Your task to perform on an android device: Open Maps and search for coffee Image 0: 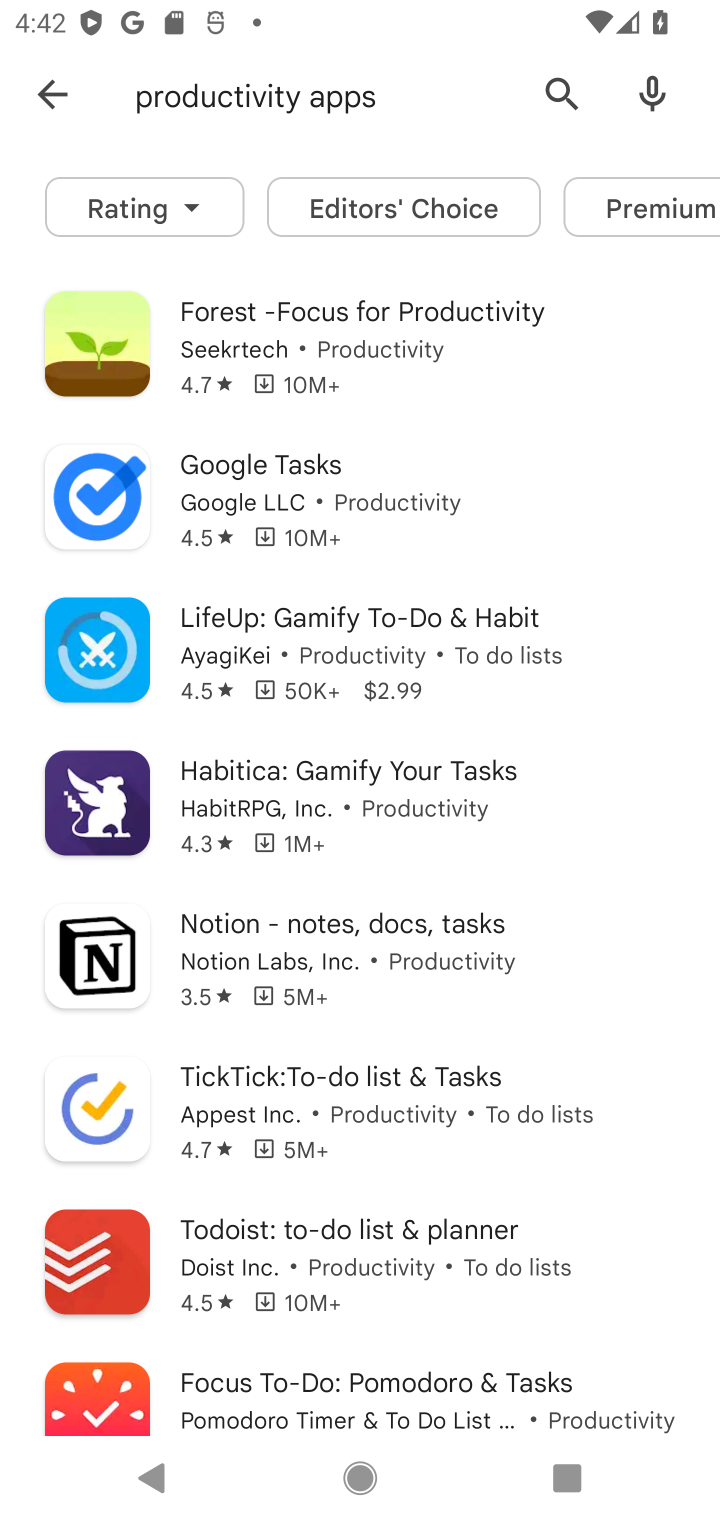
Step 0: press home button
Your task to perform on an android device: Open Maps and search for coffee Image 1: 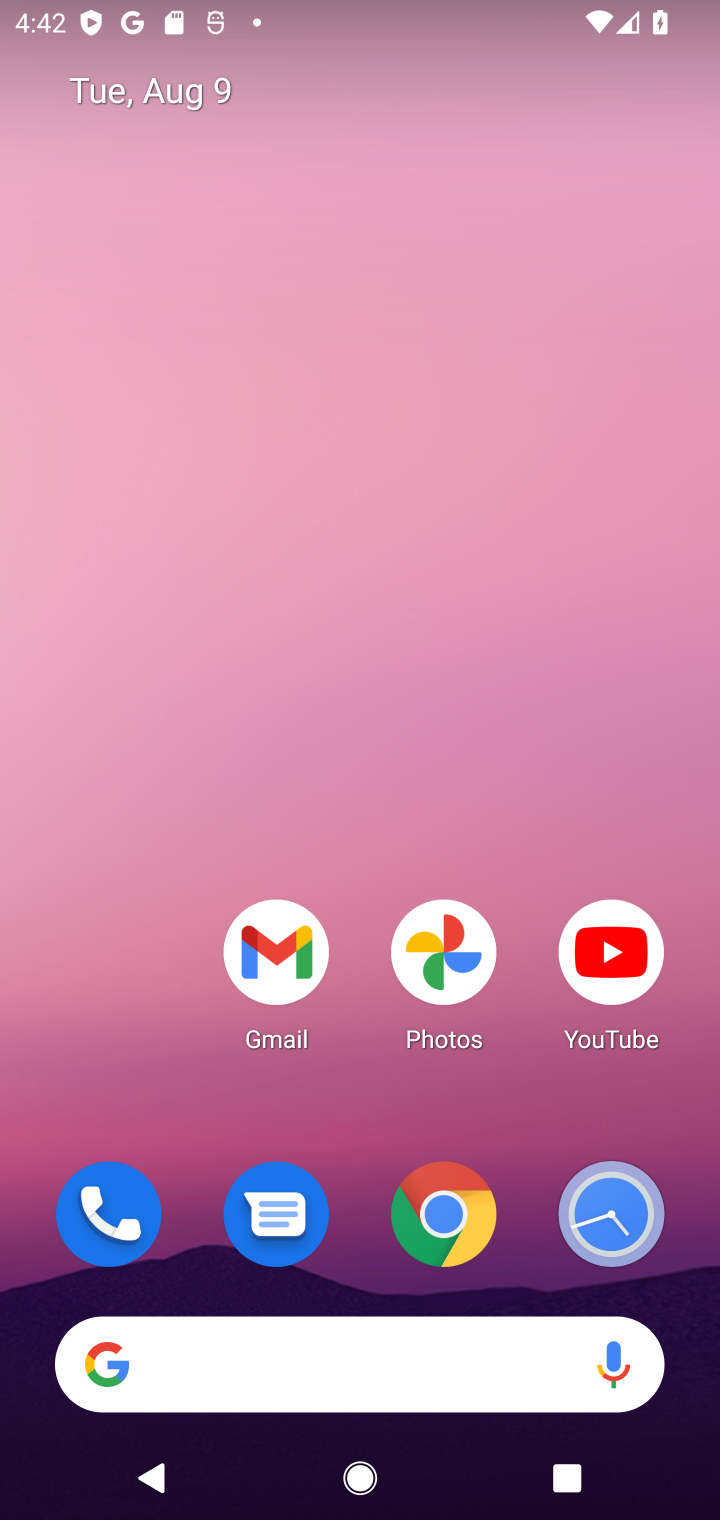
Step 1: drag from (428, 1395) to (438, 369)
Your task to perform on an android device: Open Maps and search for coffee Image 2: 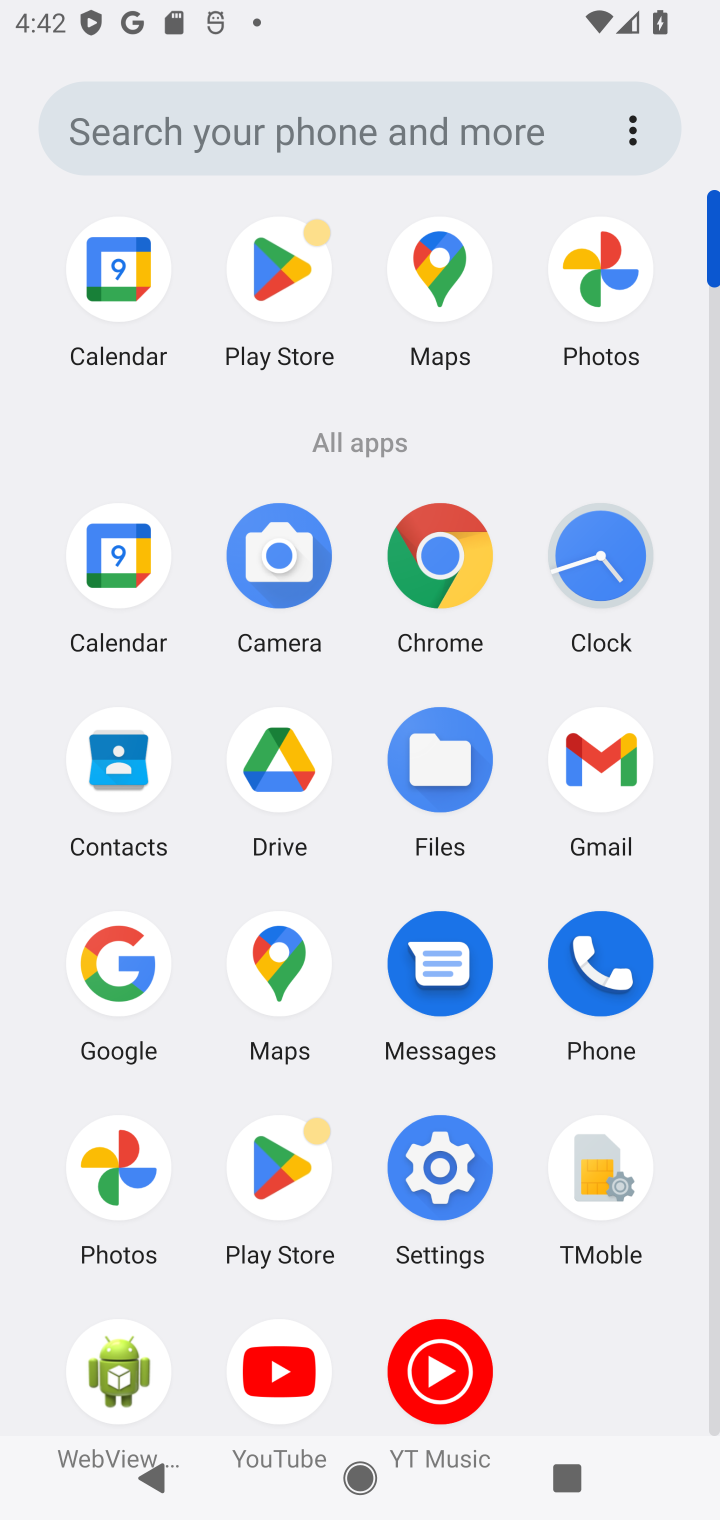
Step 2: click (444, 304)
Your task to perform on an android device: Open Maps and search for coffee Image 3: 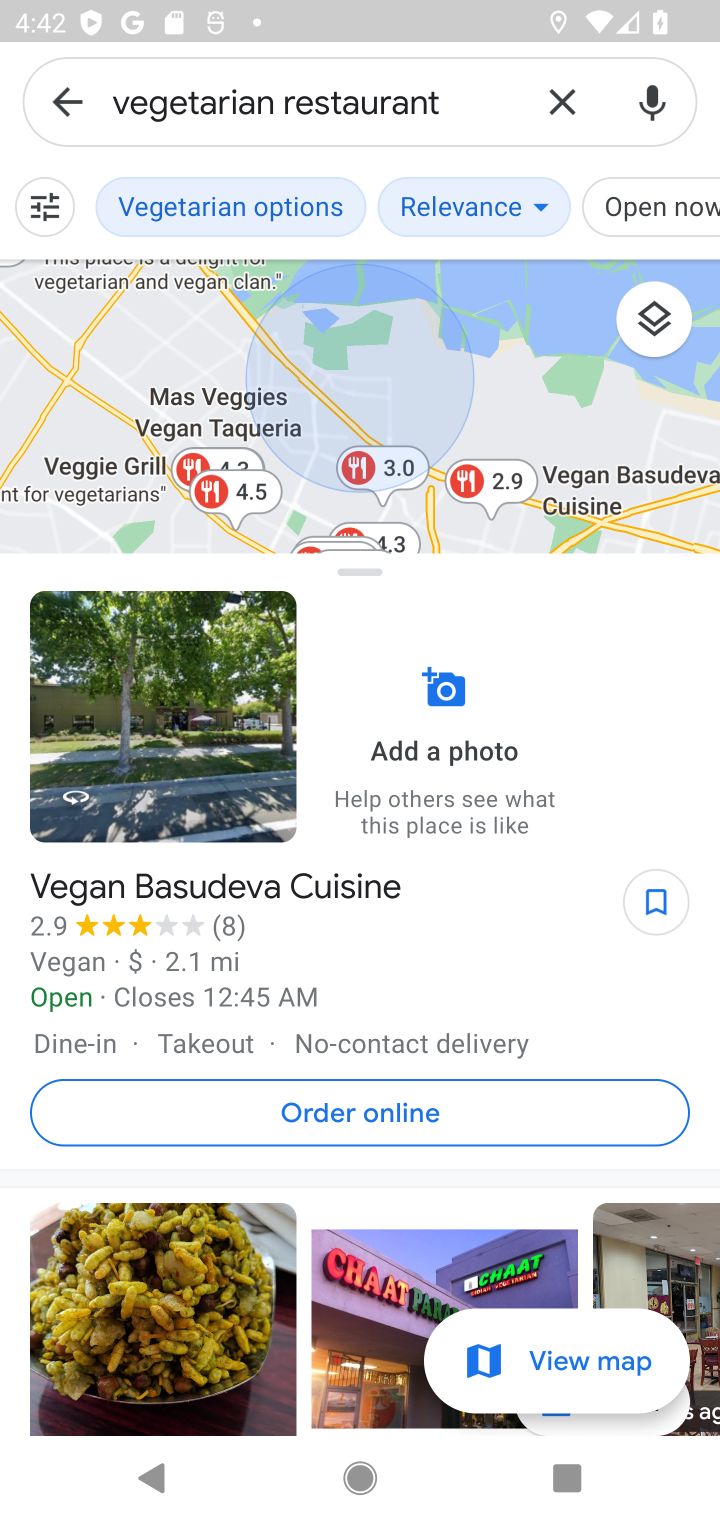
Step 3: click (78, 133)
Your task to perform on an android device: Open Maps and search for coffee Image 4: 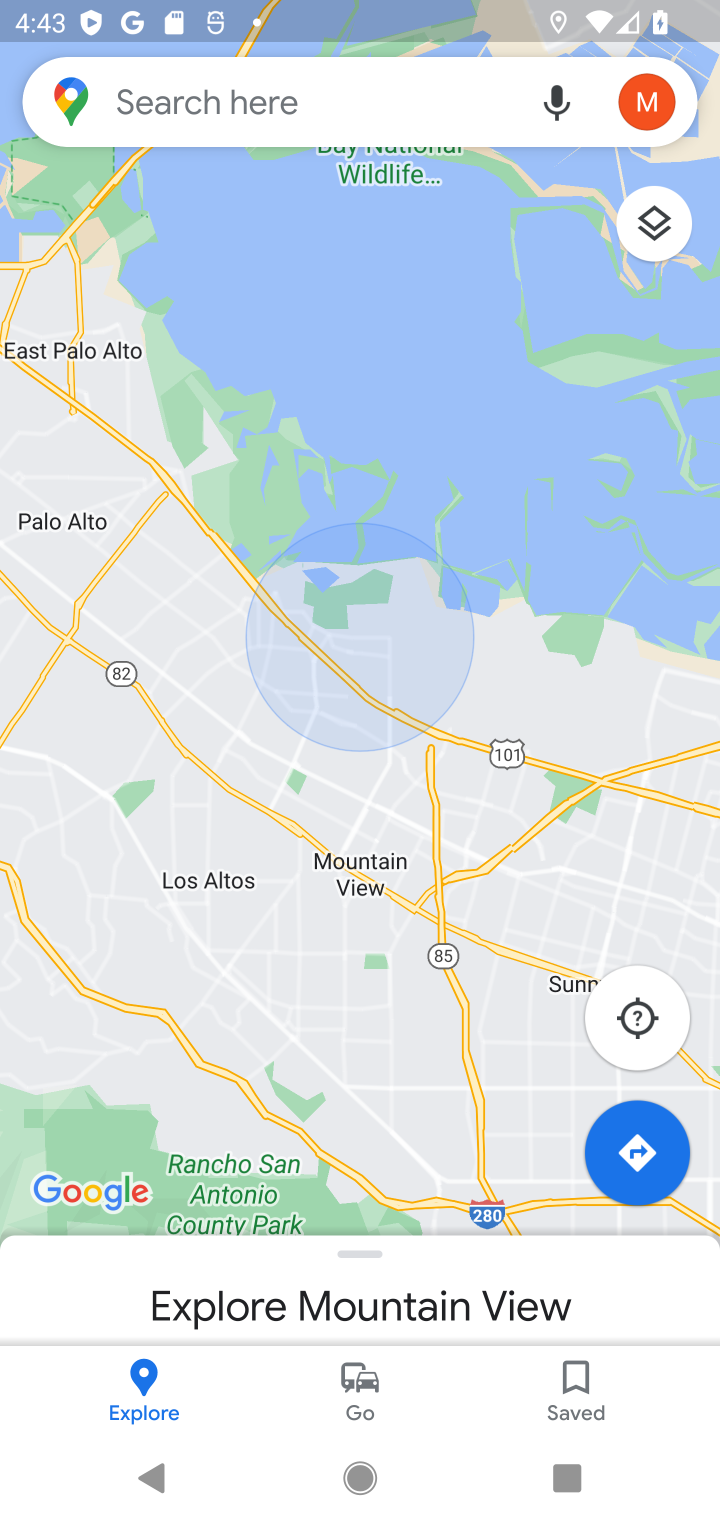
Step 4: click (240, 107)
Your task to perform on an android device: Open Maps and search for coffee Image 5: 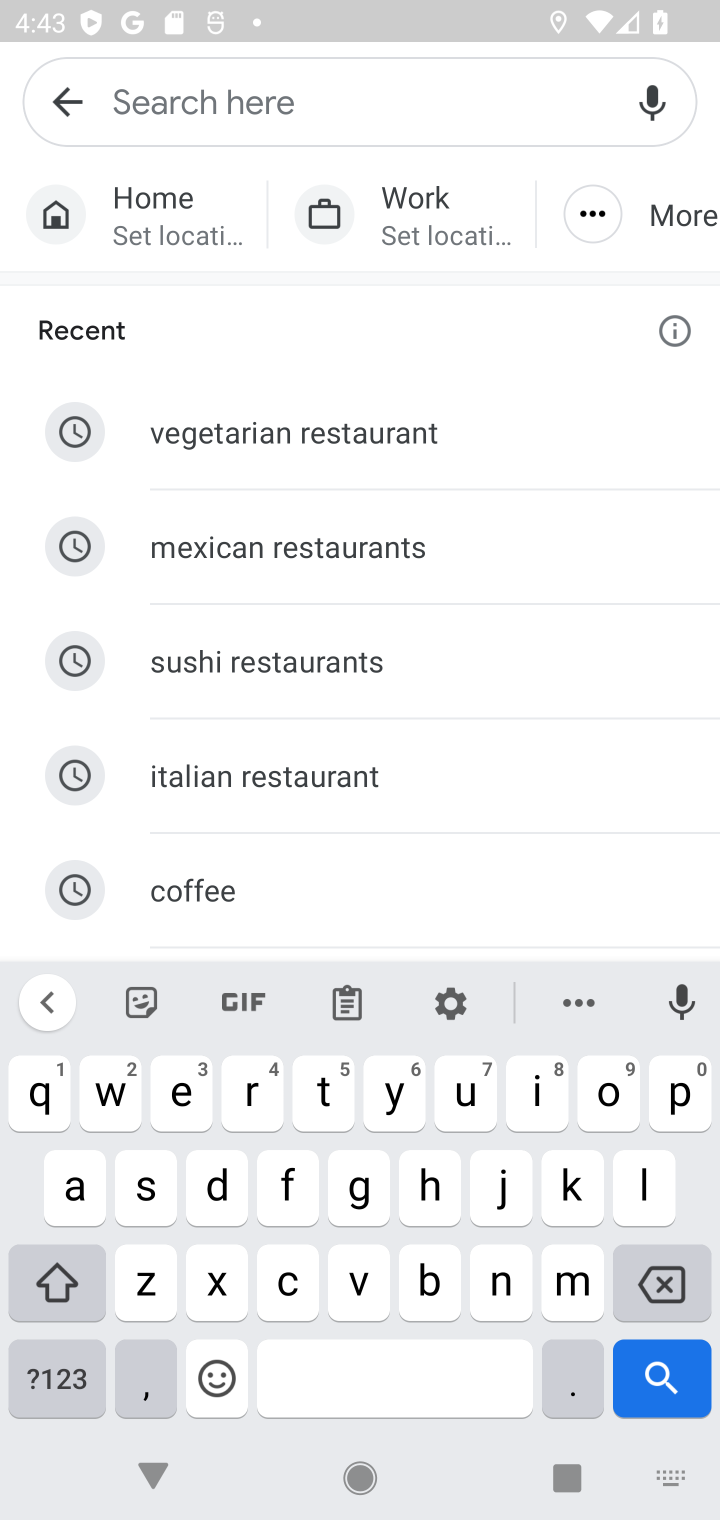
Step 5: click (236, 885)
Your task to perform on an android device: Open Maps and search for coffee Image 6: 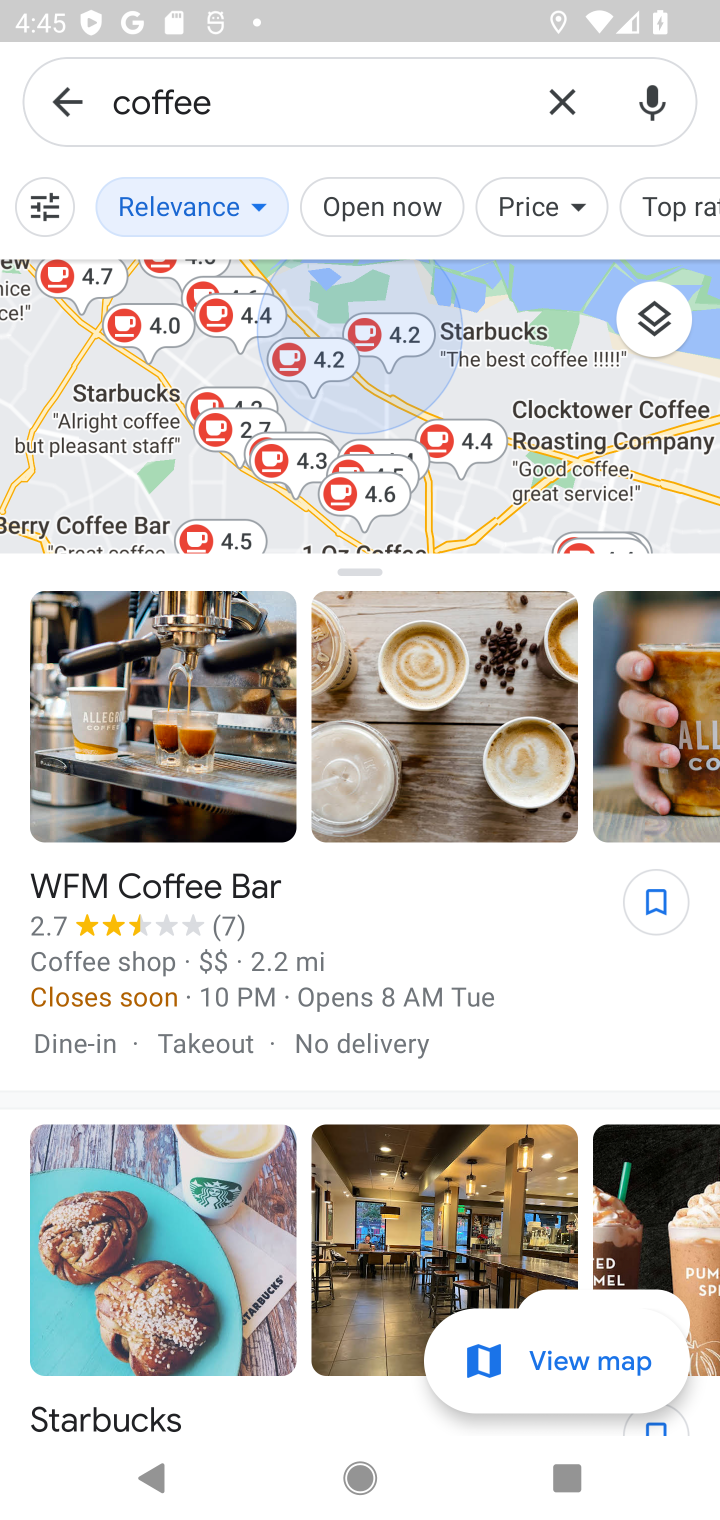
Step 6: task complete